Your task to perform on an android device: turn notification dots off Image 0: 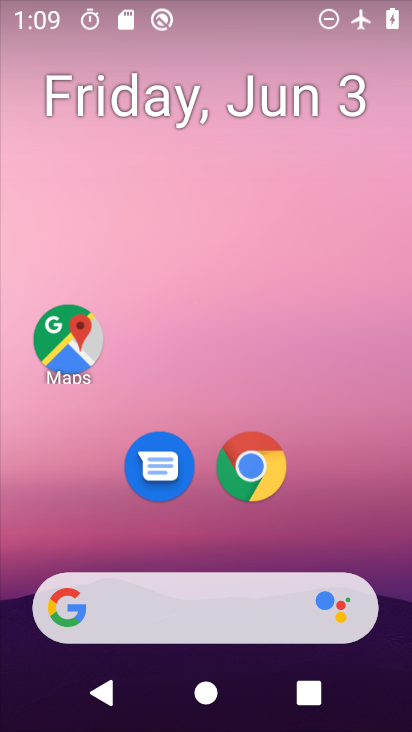
Step 0: drag from (166, 542) to (156, 166)
Your task to perform on an android device: turn notification dots off Image 1: 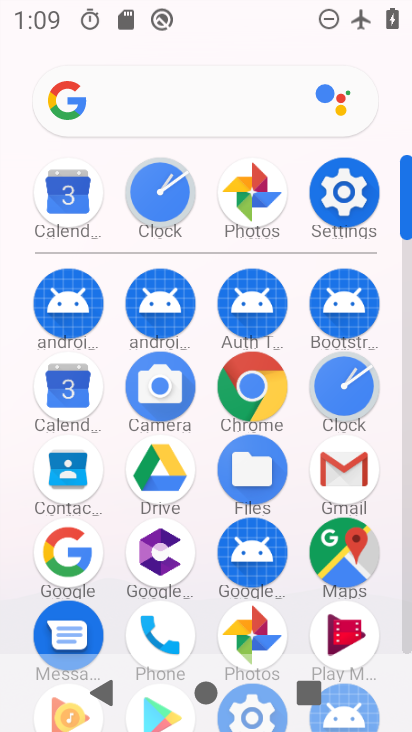
Step 1: click (332, 206)
Your task to perform on an android device: turn notification dots off Image 2: 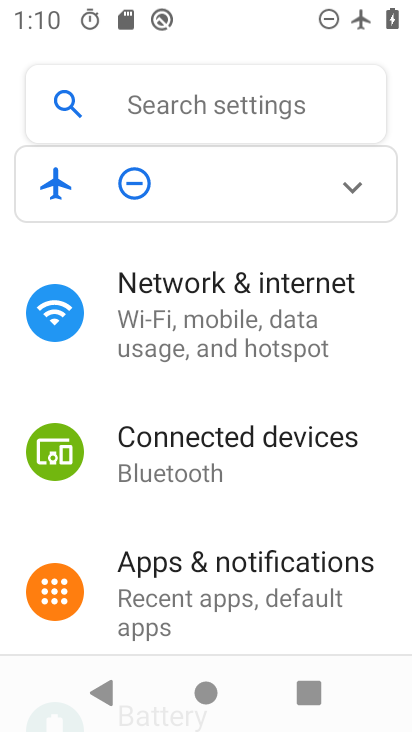
Step 2: click (270, 596)
Your task to perform on an android device: turn notification dots off Image 3: 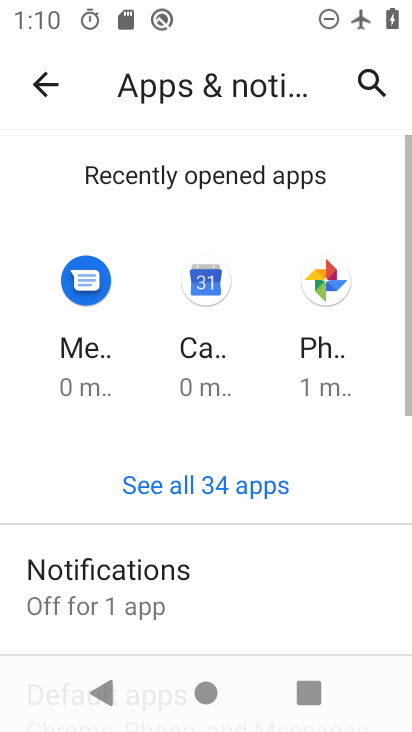
Step 3: drag from (244, 583) to (246, 327)
Your task to perform on an android device: turn notification dots off Image 4: 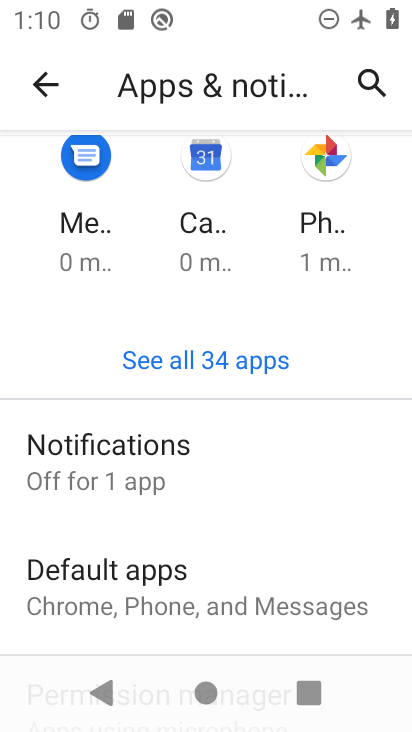
Step 4: click (214, 509)
Your task to perform on an android device: turn notification dots off Image 5: 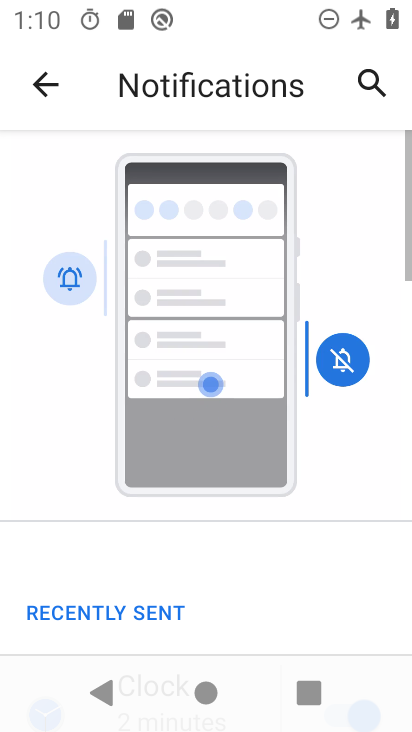
Step 5: drag from (238, 567) to (220, 70)
Your task to perform on an android device: turn notification dots off Image 6: 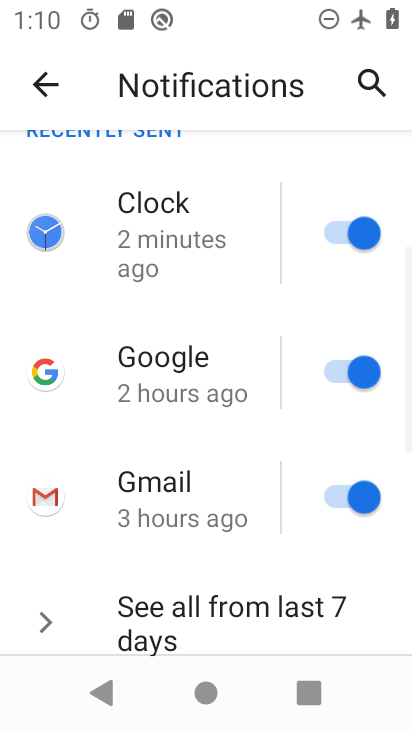
Step 6: drag from (232, 500) to (237, 215)
Your task to perform on an android device: turn notification dots off Image 7: 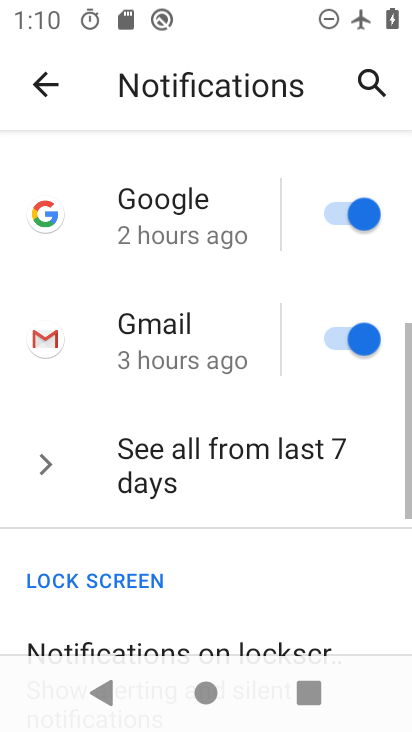
Step 7: drag from (201, 560) to (189, 230)
Your task to perform on an android device: turn notification dots off Image 8: 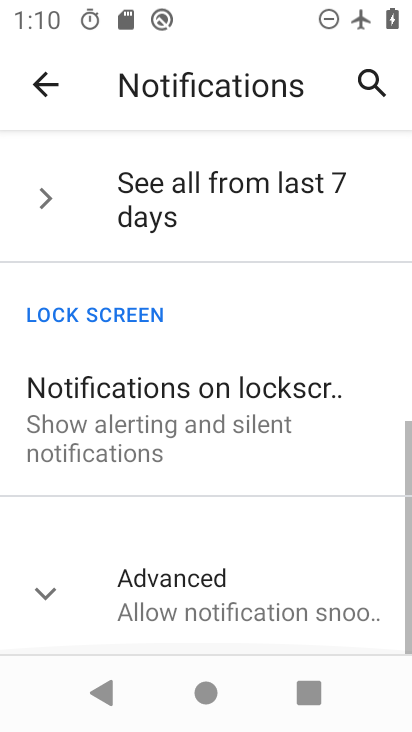
Step 8: drag from (191, 567) to (205, 235)
Your task to perform on an android device: turn notification dots off Image 9: 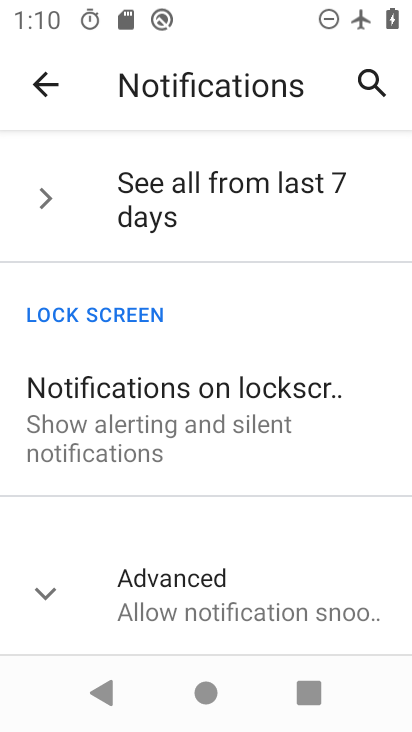
Step 9: click (216, 603)
Your task to perform on an android device: turn notification dots off Image 10: 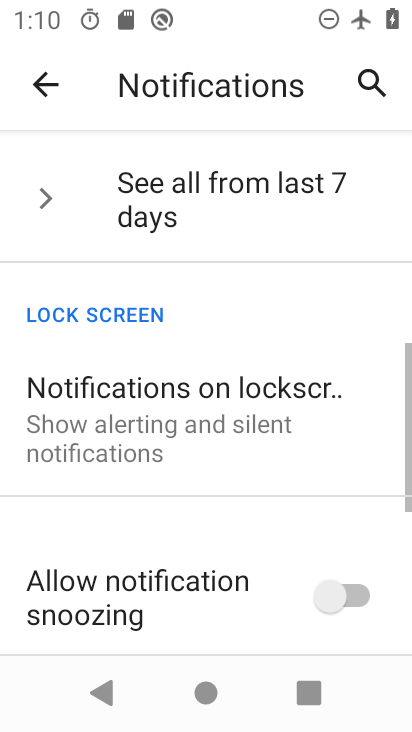
Step 10: task complete